Your task to perform on an android device: turn on showing notifications on the lock screen Image 0: 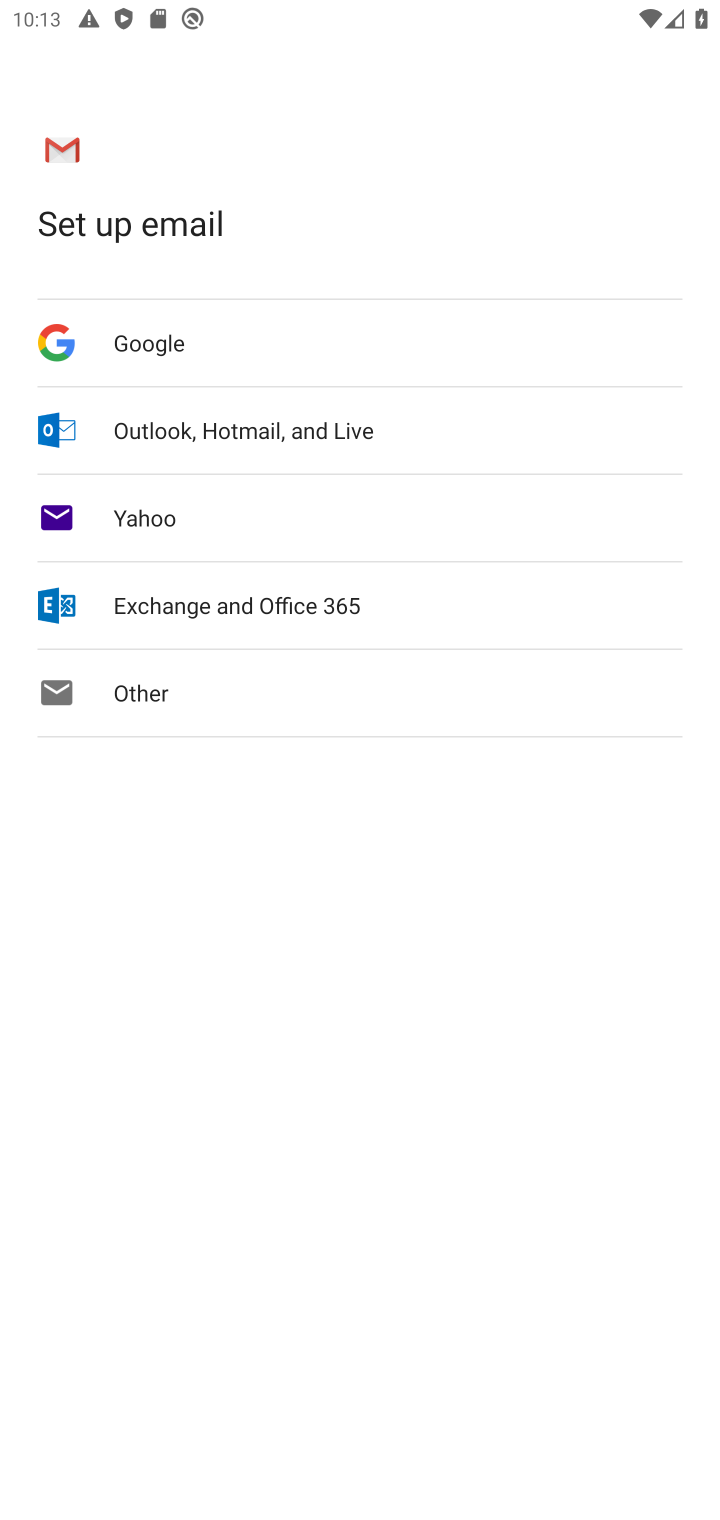
Step 0: press home button
Your task to perform on an android device: turn on showing notifications on the lock screen Image 1: 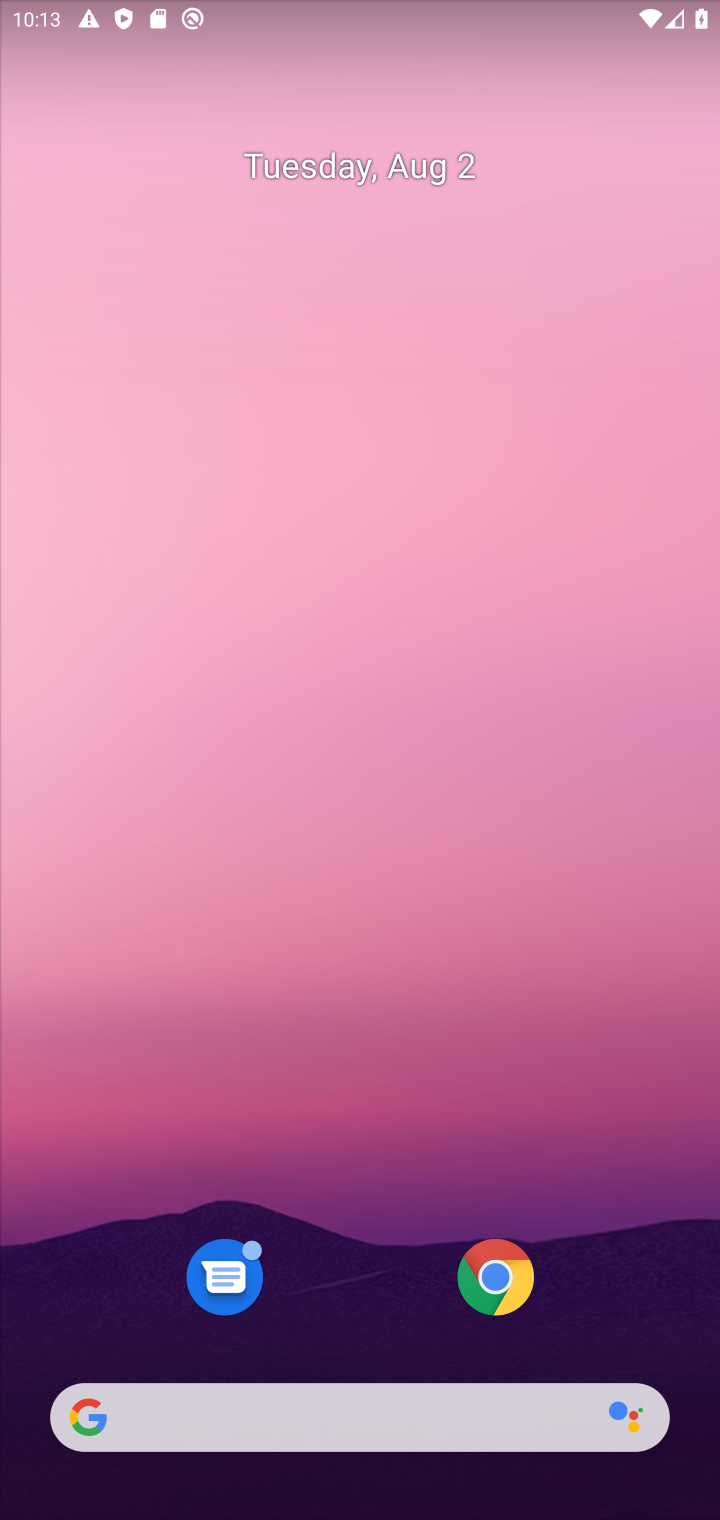
Step 1: drag from (427, 1204) to (288, 498)
Your task to perform on an android device: turn on showing notifications on the lock screen Image 2: 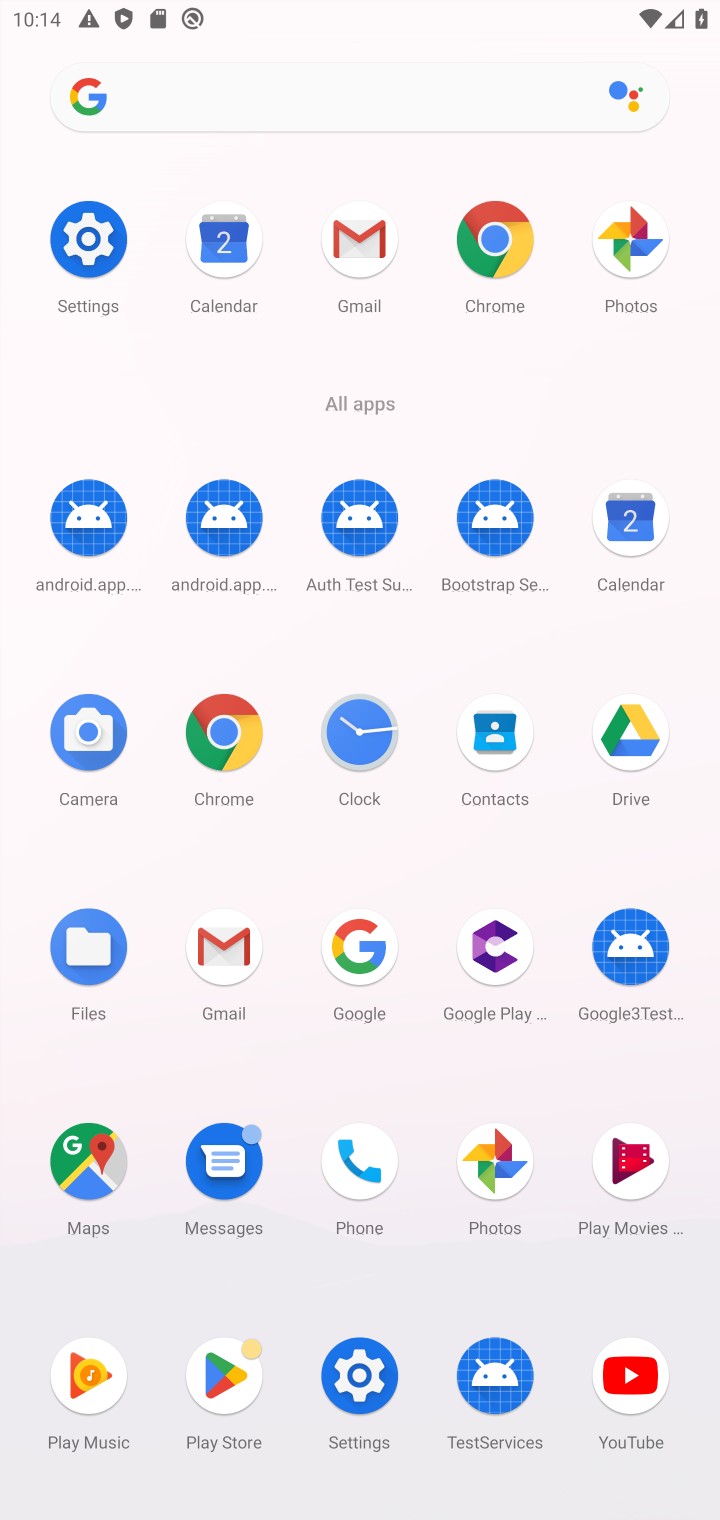
Step 2: click (75, 233)
Your task to perform on an android device: turn on showing notifications on the lock screen Image 3: 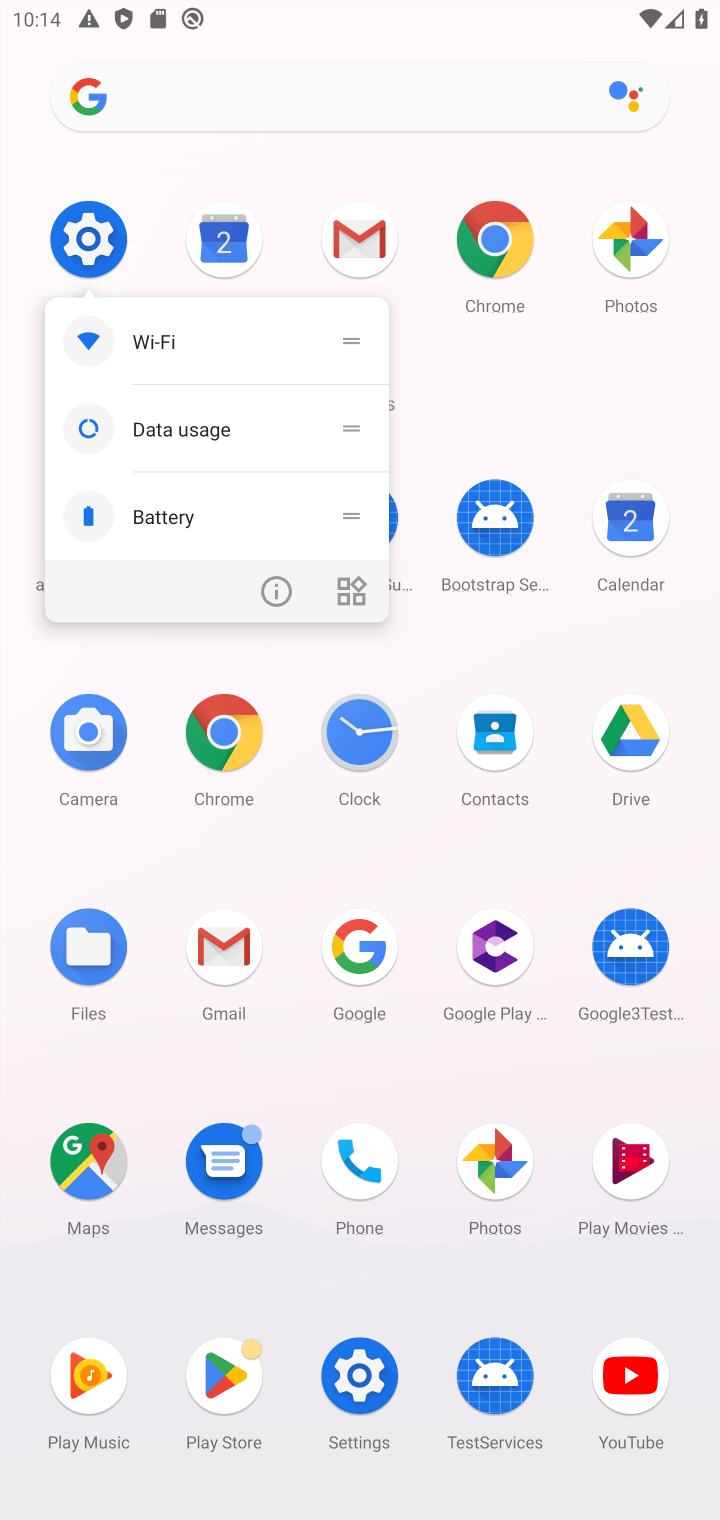
Step 3: click (75, 233)
Your task to perform on an android device: turn on showing notifications on the lock screen Image 4: 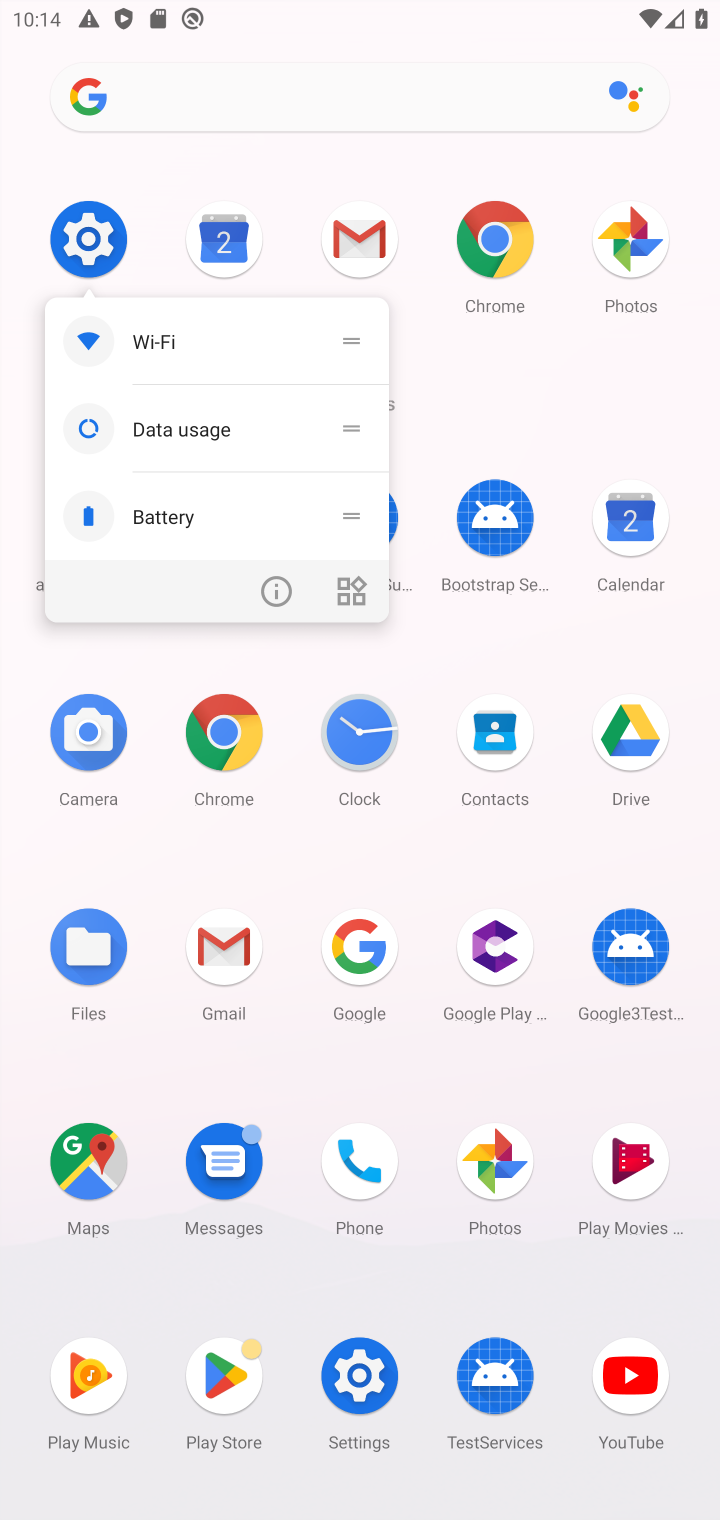
Step 4: click (91, 227)
Your task to perform on an android device: turn on showing notifications on the lock screen Image 5: 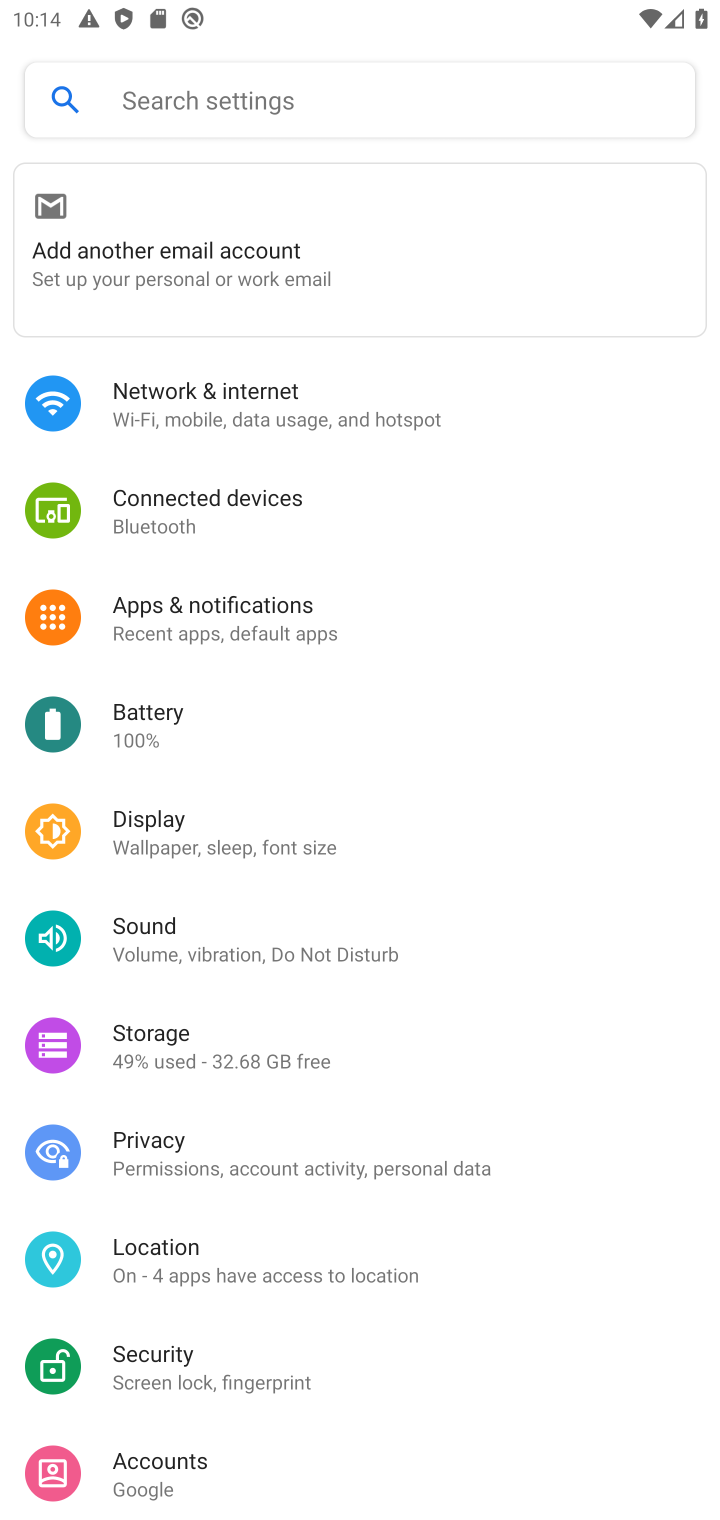
Step 5: click (177, 620)
Your task to perform on an android device: turn on showing notifications on the lock screen Image 6: 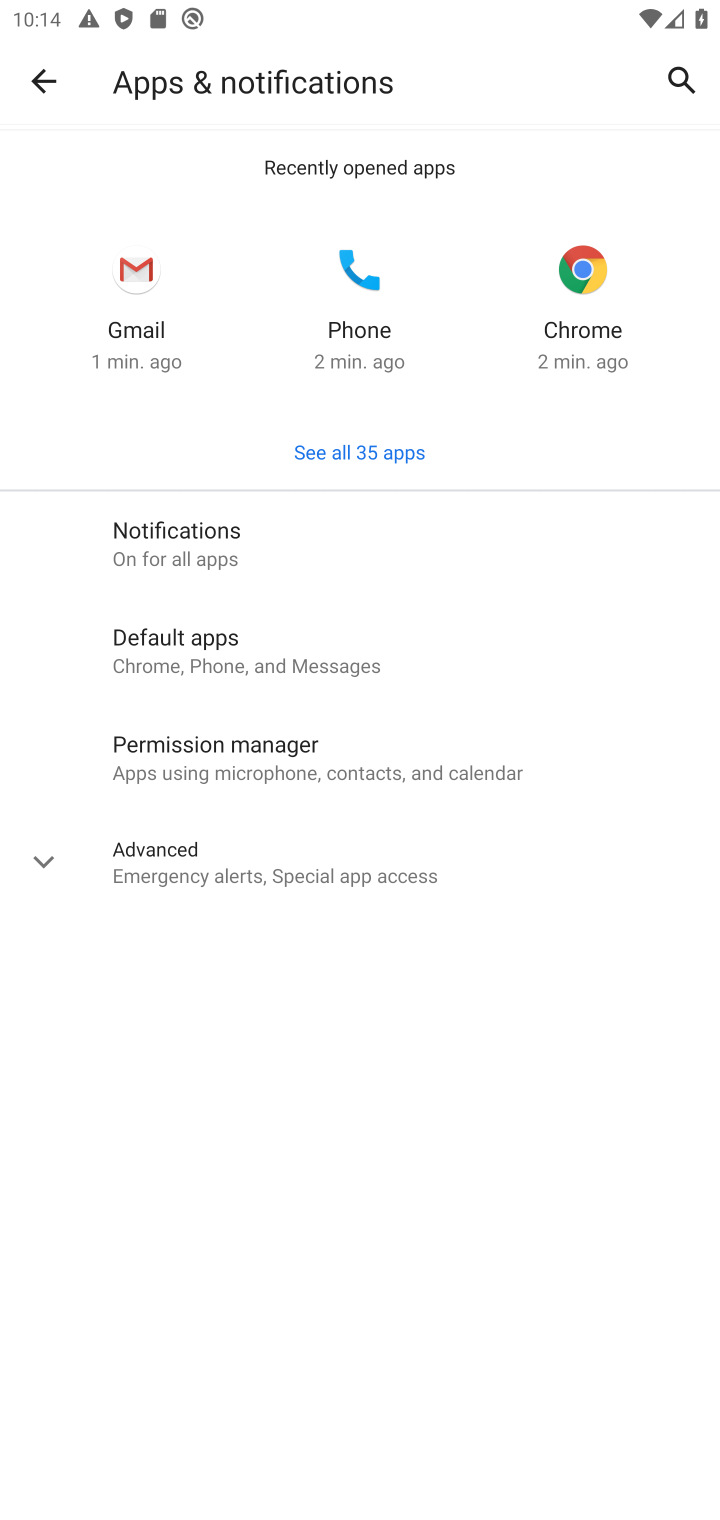
Step 6: click (173, 557)
Your task to perform on an android device: turn on showing notifications on the lock screen Image 7: 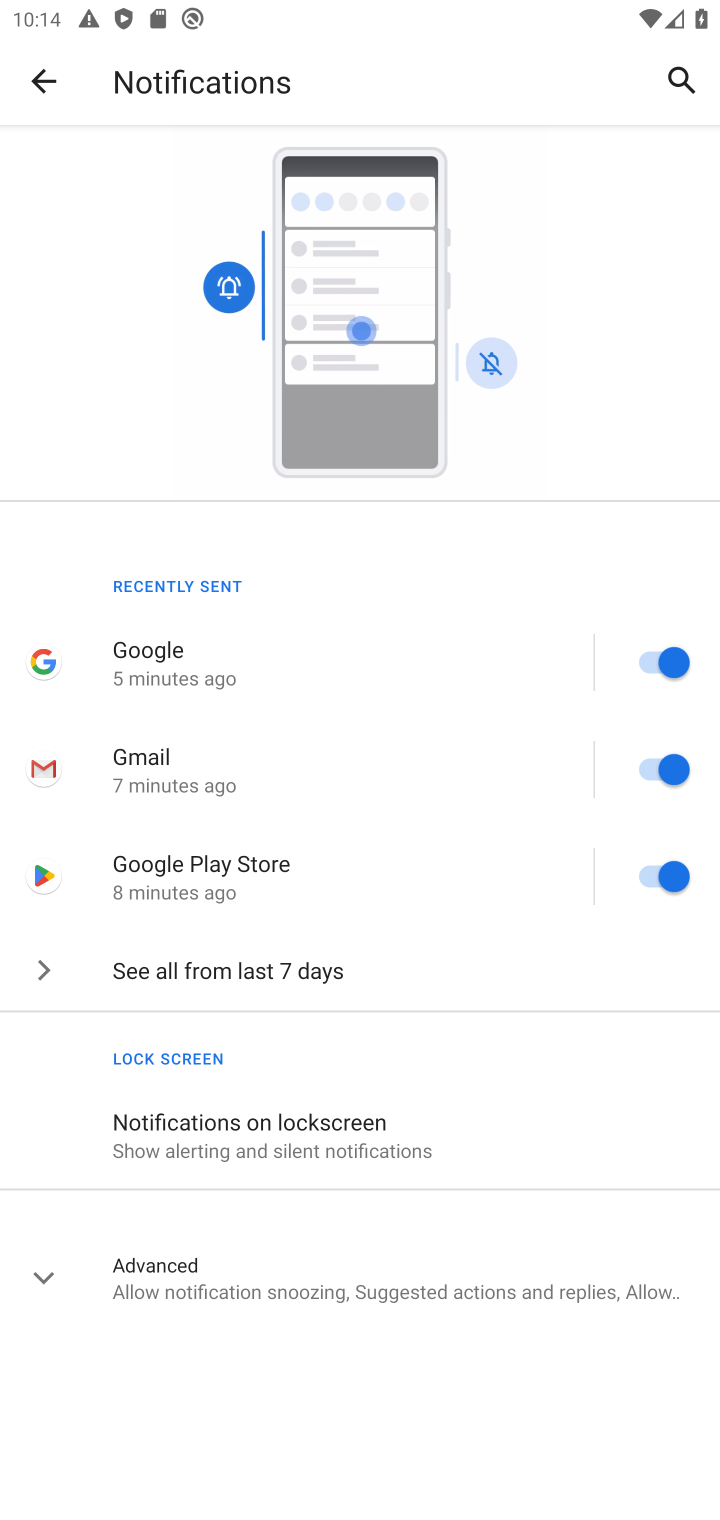
Step 7: click (184, 1135)
Your task to perform on an android device: turn on showing notifications on the lock screen Image 8: 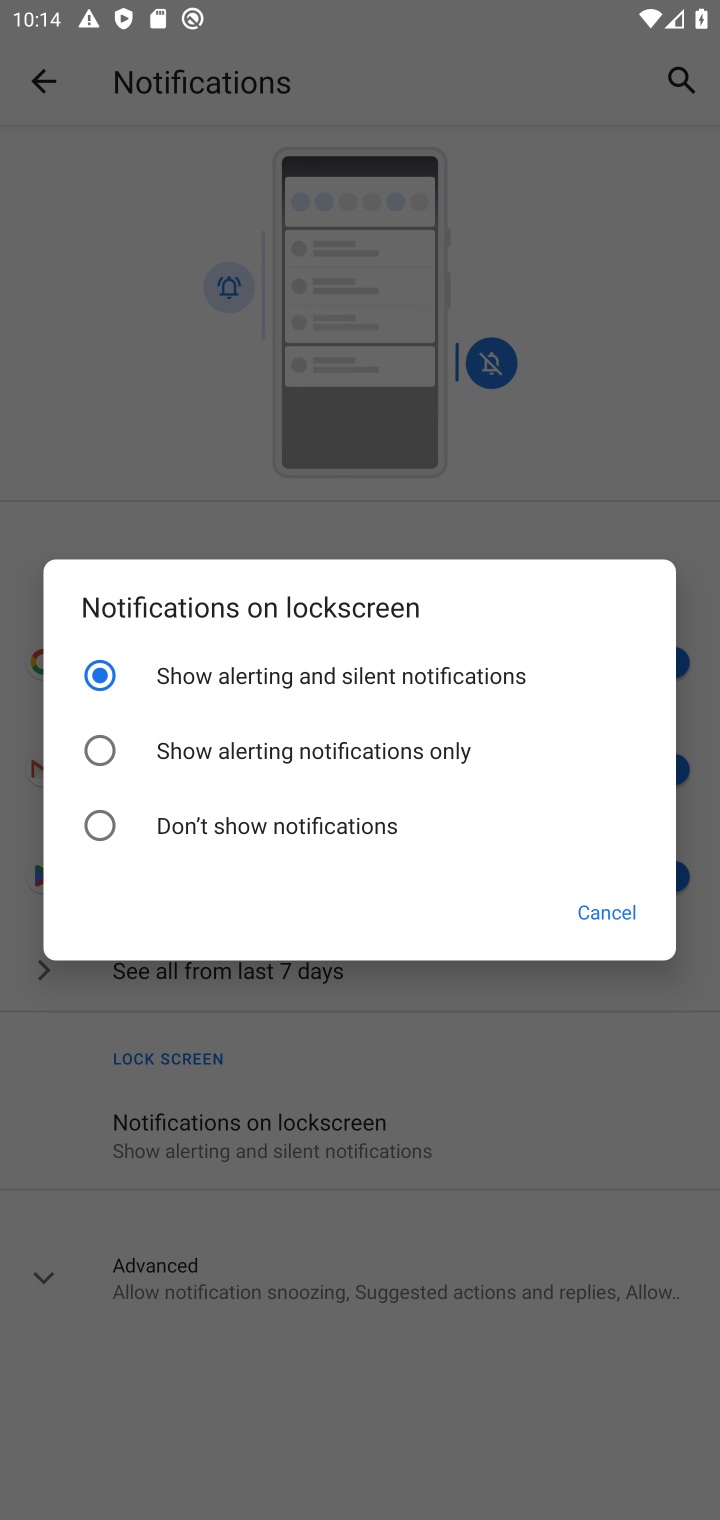
Step 8: task complete